Your task to perform on an android device: change notification settings in the gmail app Image 0: 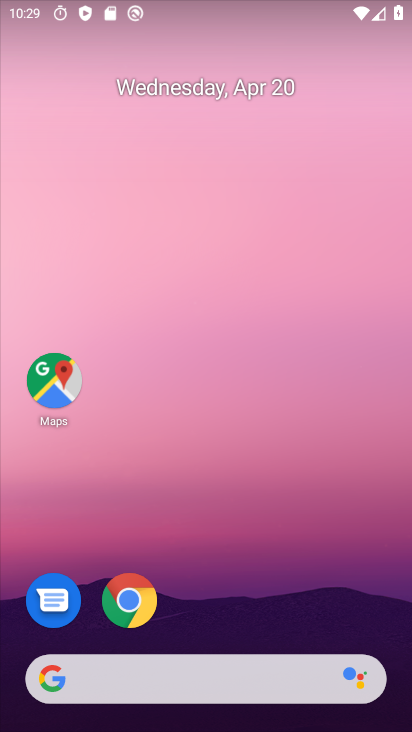
Step 0: drag from (308, 499) to (368, 33)
Your task to perform on an android device: change notification settings in the gmail app Image 1: 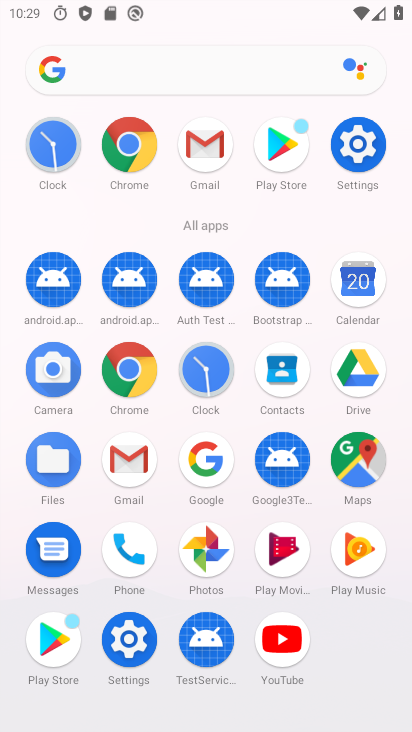
Step 1: click (203, 136)
Your task to perform on an android device: change notification settings in the gmail app Image 2: 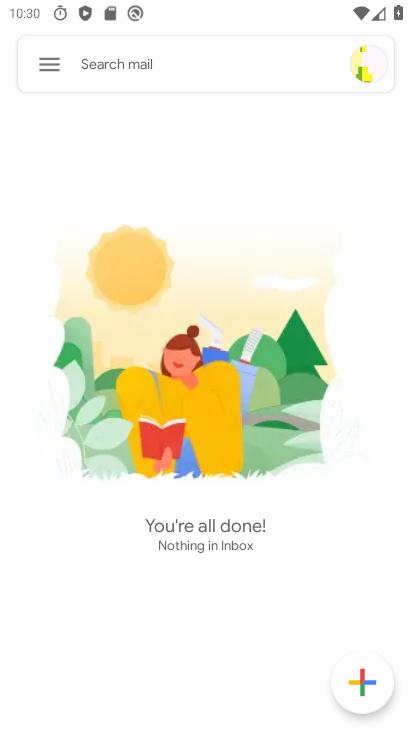
Step 2: click (49, 63)
Your task to perform on an android device: change notification settings in the gmail app Image 3: 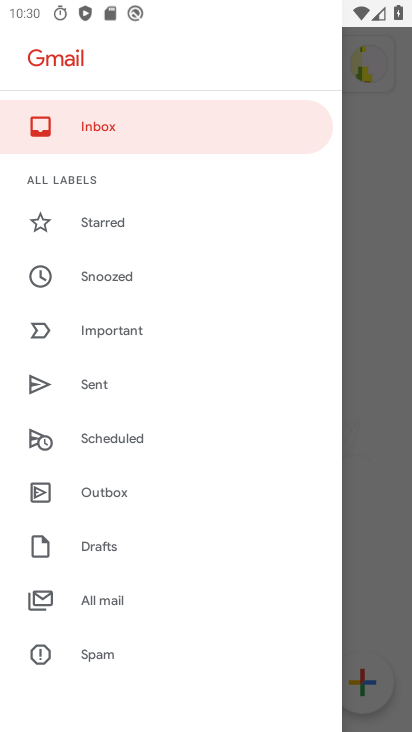
Step 3: drag from (184, 561) to (225, 132)
Your task to perform on an android device: change notification settings in the gmail app Image 4: 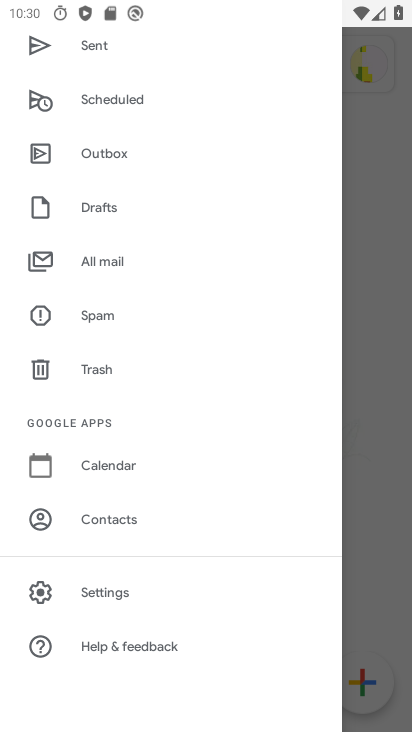
Step 4: click (124, 586)
Your task to perform on an android device: change notification settings in the gmail app Image 5: 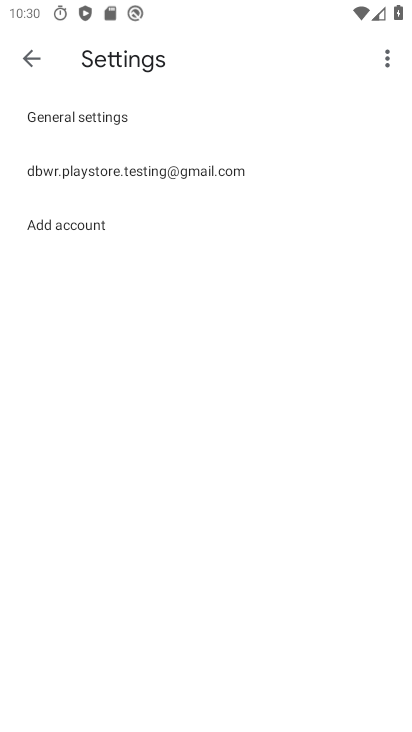
Step 5: click (208, 162)
Your task to perform on an android device: change notification settings in the gmail app Image 6: 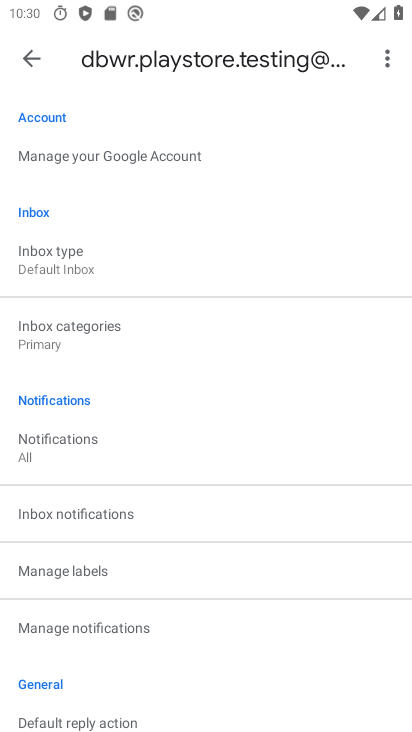
Step 6: drag from (268, 416) to (295, 149)
Your task to perform on an android device: change notification settings in the gmail app Image 7: 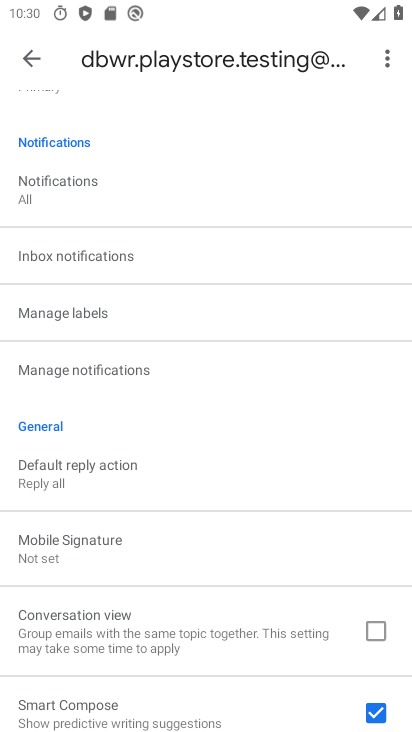
Step 7: click (193, 373)
Your task to perform on an android device: change notification settings in the gmail app Image 8: 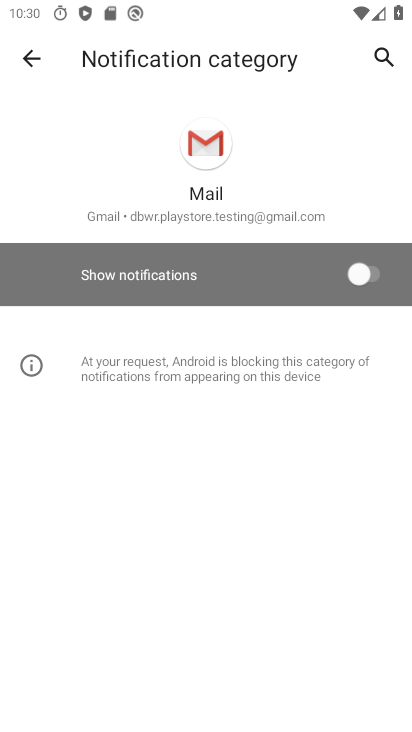
Step 8: click (363, 267)
Your task to perform on an android device: change notification settings in the gmail app Image 9: 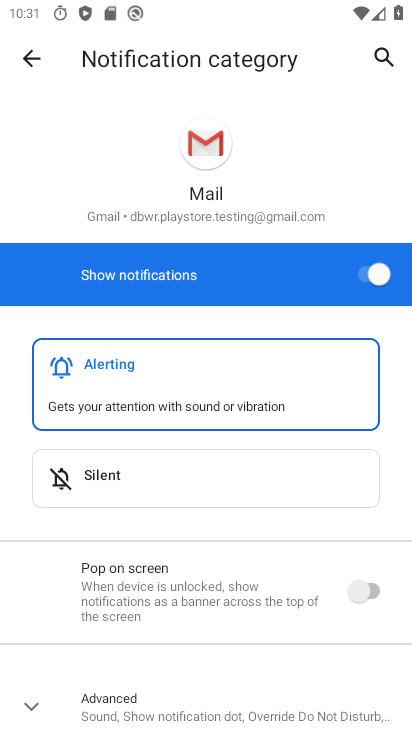
Step 9: task complete